Your task to perform on an android device: When is my next appointment? Image 0: 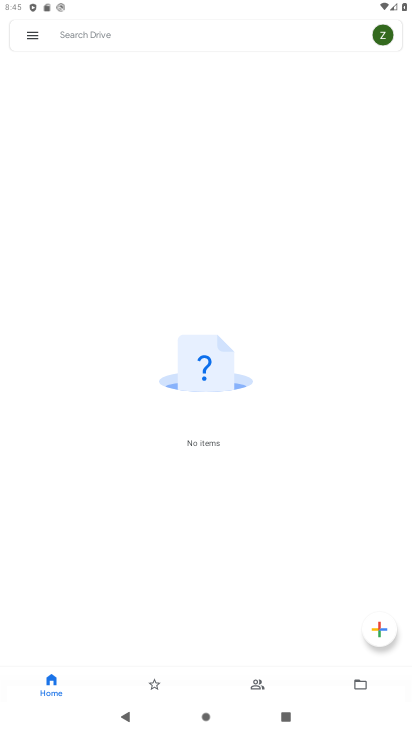
Step 0: press home button
Your task to perform on an android device: When is my next appointment? Image 1: 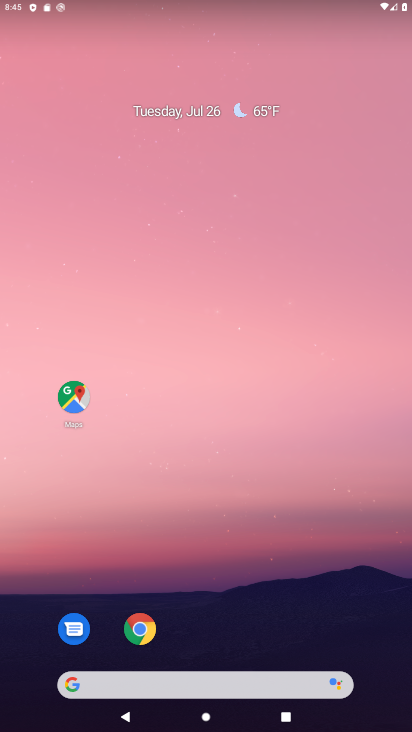
Step 1: drag from (322, 622) to (236, 61)
Your task to perform on an android device: When is my next appointment? Image 2: 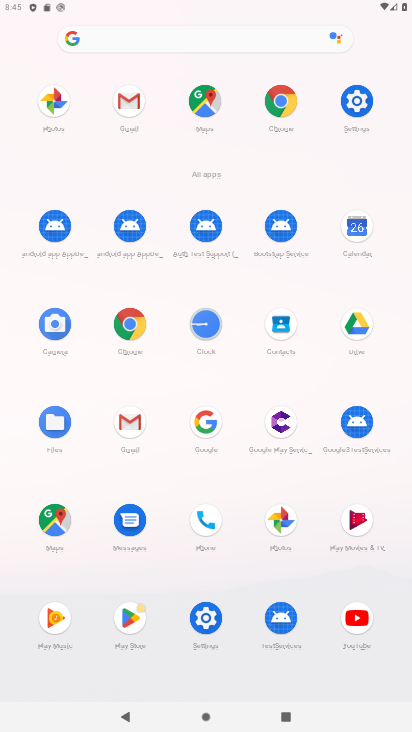
Step 2: click (362, 219)
Your task to perform on an android device: When is my next appointment? Image 3: 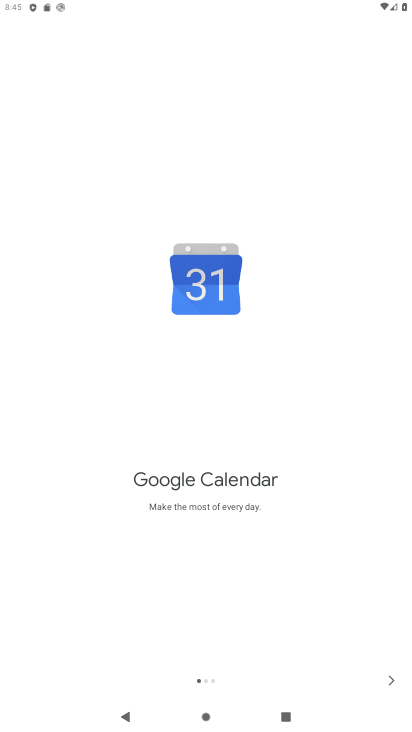
Step 3: click (395, 670)
Your task to perform on an android device: When is my next appointment? Image 4: 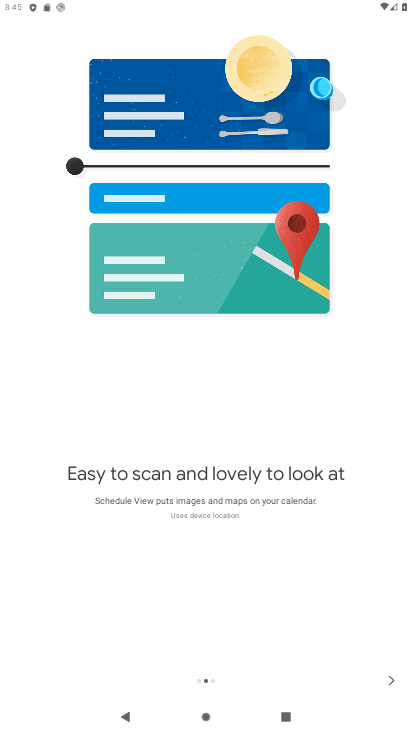
Step 4: click (395, 670)
Your task to perform on an android device: When is my next appointment? Image 5: 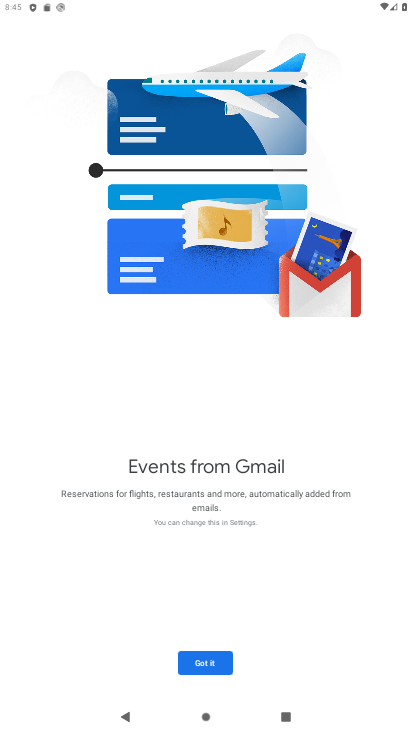
Step 5: click (205, 670)
Your task to perform on an android device: When is my next appointment? Image 6: 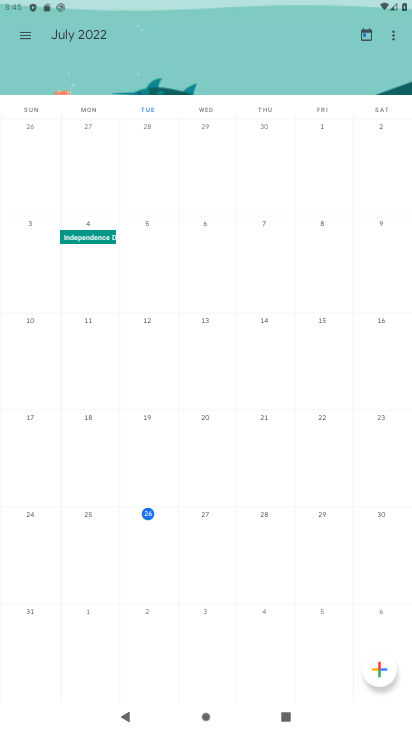
Step 6: click (205, 662)
Your task to perform on an android device: When is my next appointment? Image 7: 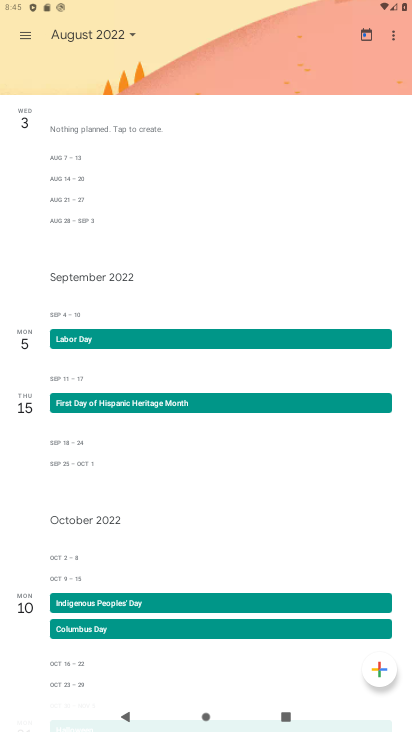
Step 7: drag from (280, 590) to (284, 390)
Your task to perform on an android device: When is my next appointment? Image 8: 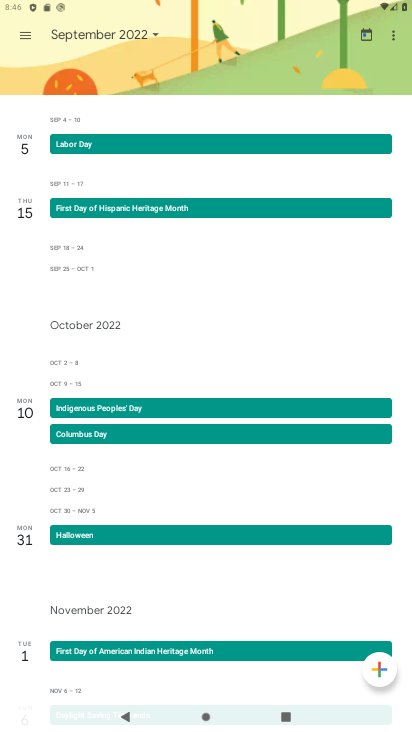
Step 8: click (86, 30)
Your task to perform on an android device: When is my next appointment? Image 9: 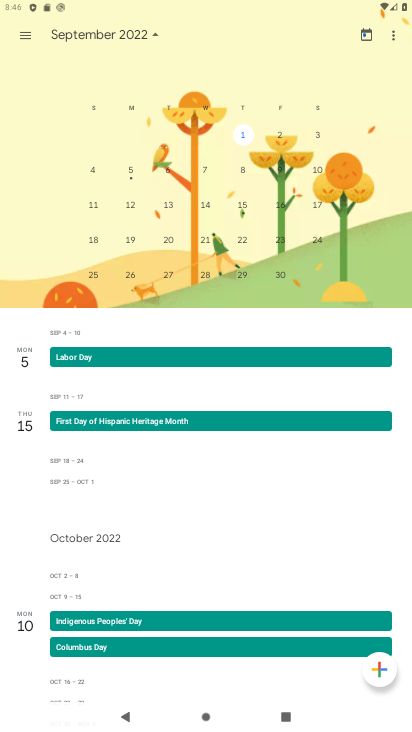
Step 9: click (140, 26)
Your task to perform on an android device: When is my next appointment? Image 10: 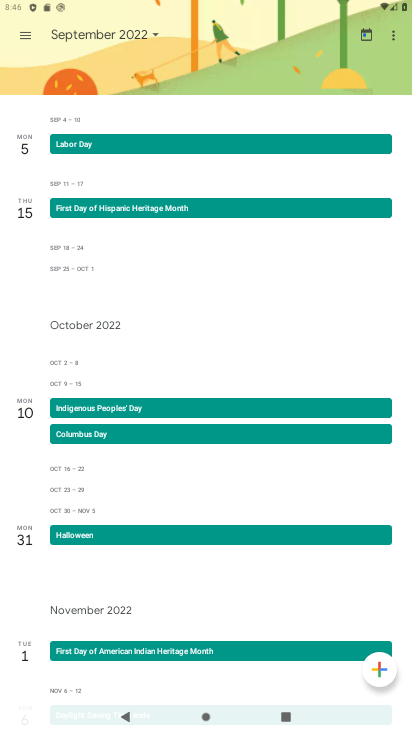
Step 10: click (137, 31)
Your task to perform on an android device: When is my next appointment? Image 11: 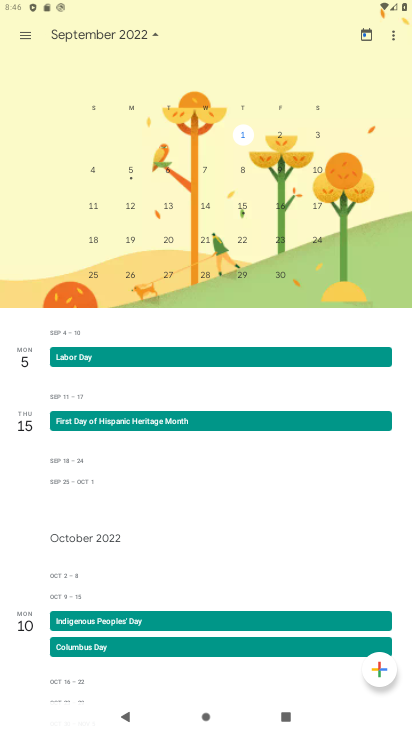
Step 11: click (27, 30)
Your task to perform on an android device: When is my next appointment? Image 12: 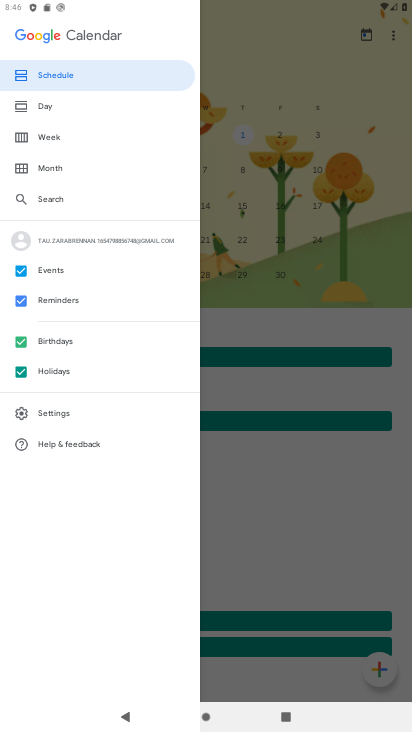
Step 12: click (40, 165)
Your task to perform on an android device: When is my next appointment? Image 13: 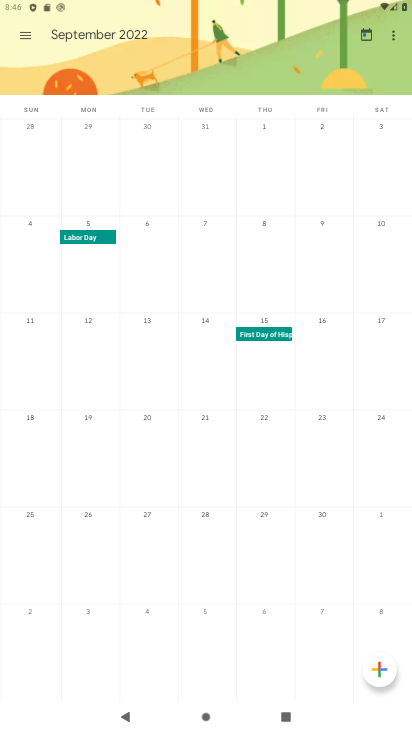
Step 13: click (101, 30)
Your task to perform on an android device: When is my next appointment? Image 14: 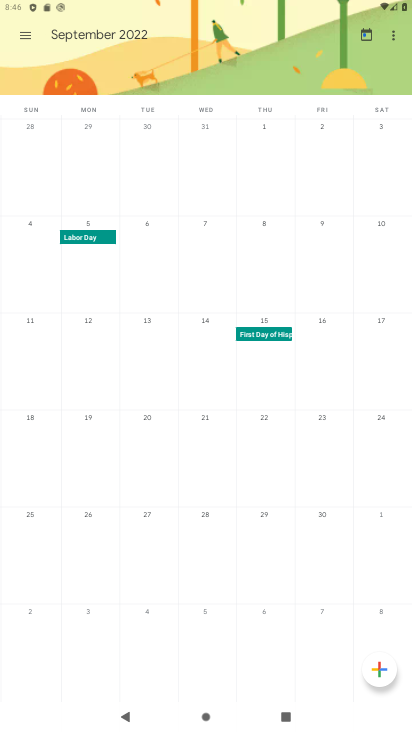
Step 14: click (70, 34)
Your task to perform on an android device: When is my next appointment? Image 15: 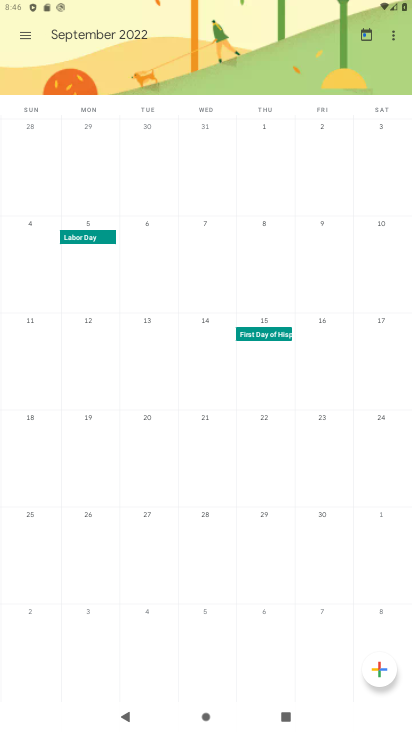
Step 15: click (21, 34)
Your task to perform on an android device: When is my next appointment? Image 16: 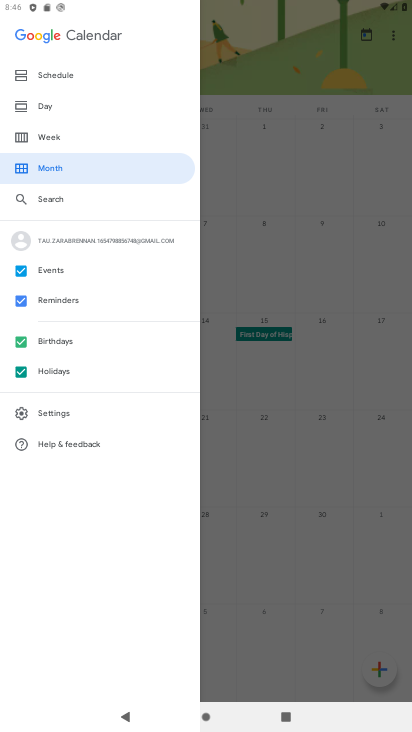
Step 16: click (60, 104)
Your task to perform on an android device: When is my next appointment? Image 17: 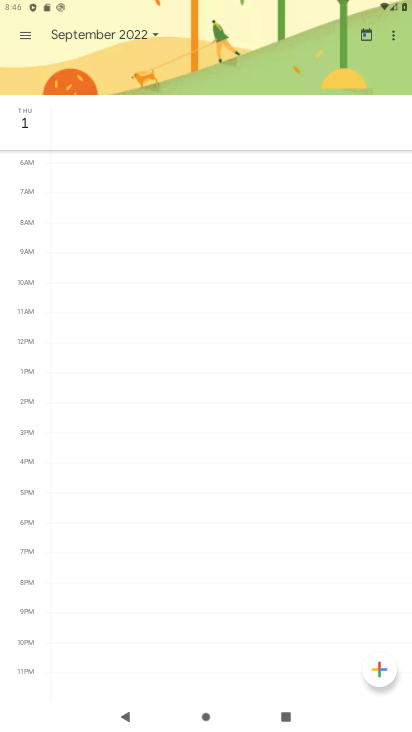
Step 17: click (124, 30)
Your task to perform on an android device: When is my next appointment? Image 18: 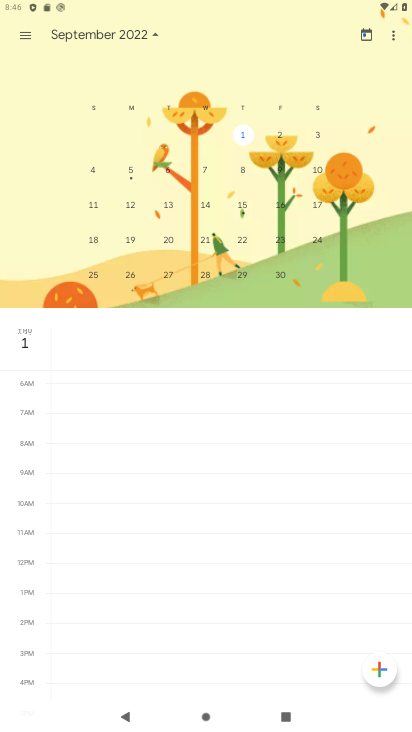
Step 18: drag from (99, 190) to (385, 201)
Your task to perform on an android device: When is my next appointment? Image 19: 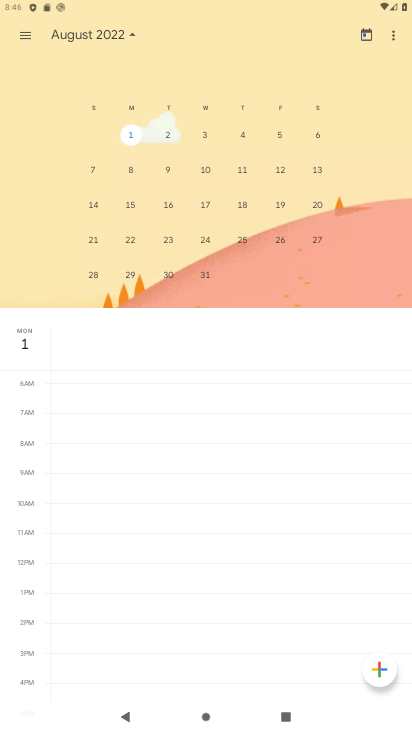
Step 19: drag from (71, 181) to (407, 261)
Your task to perform on an android device: When is my next appointment? Image 20: 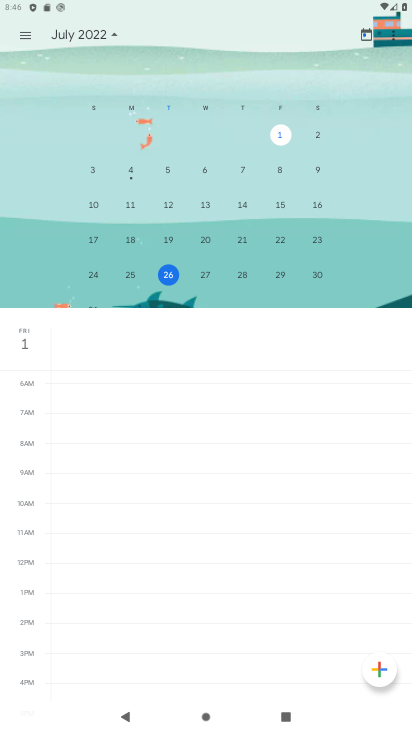
Step 20: click (163, 280)
Your task to perform on an android device: When is my next appointment? Image 21: 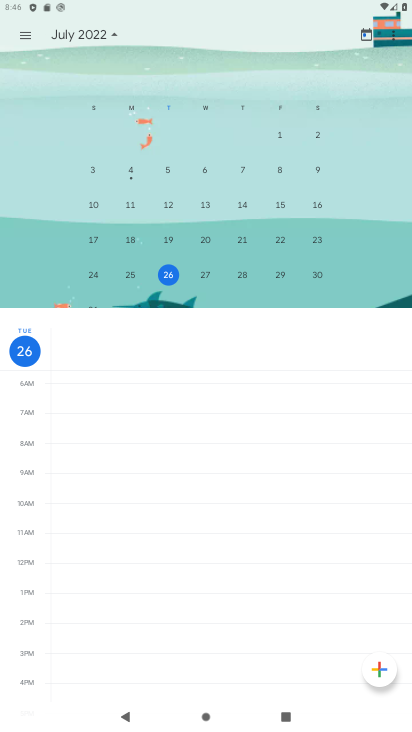
Step 21: click (21, 32)
Your task to perform on an android device: When is my next appointment? Image 22: 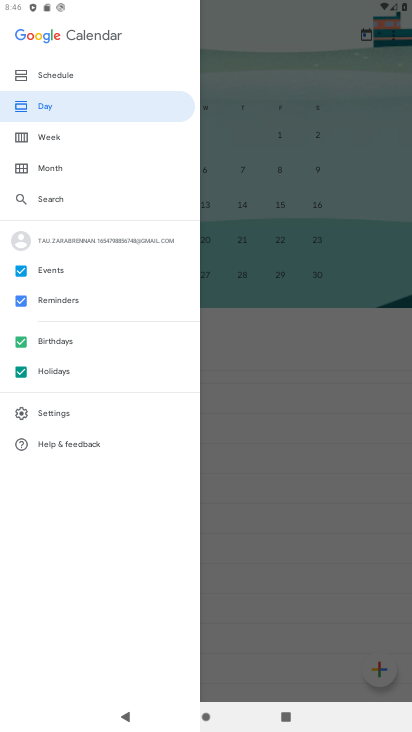
Step 22: click (52, 132)
Your task to perform on an android device: When is my next appointment? Image 23: 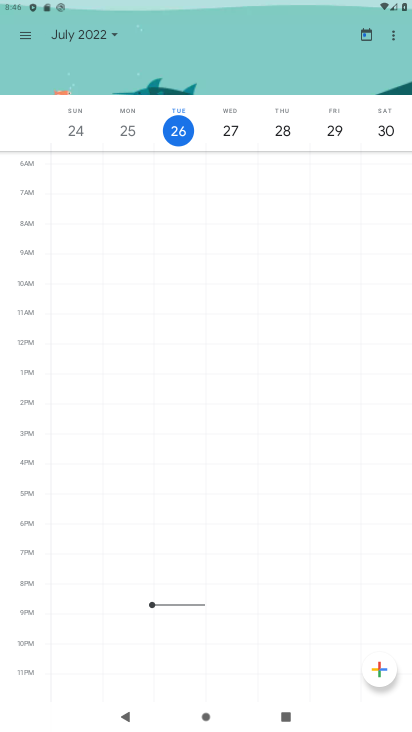
Step 23: task complete